Your task to perform on an android device: open wifi settings Image 0: 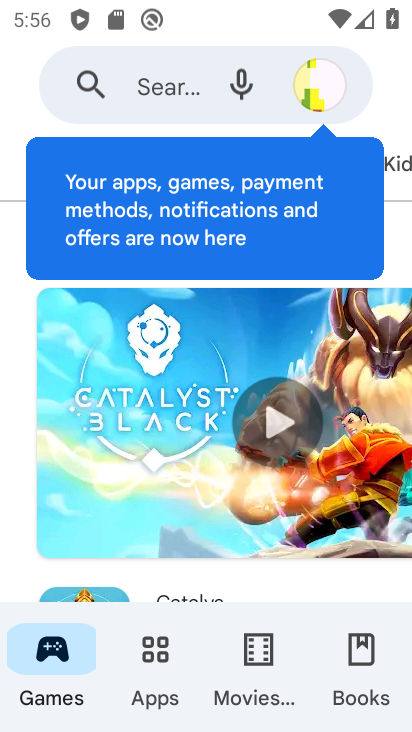
Step 0: press home button
Your task to perform on an android device: open wifi settings Image 1: 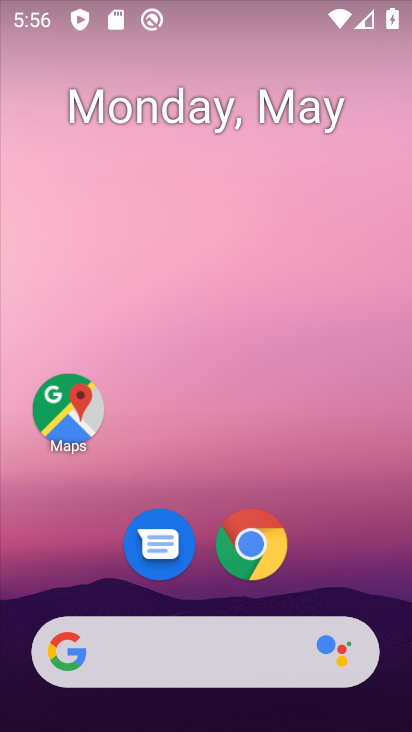
Step 1: drag from (320, 448) to (231, 0)
Your task to perform on an android device: open wifi settings Image 2: 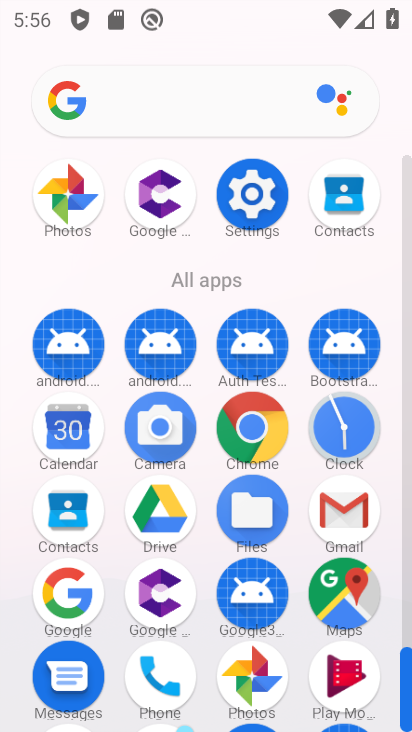
Step 2: click (262, 200)
Your task to perform on an android device: open wifi settings Image 3: 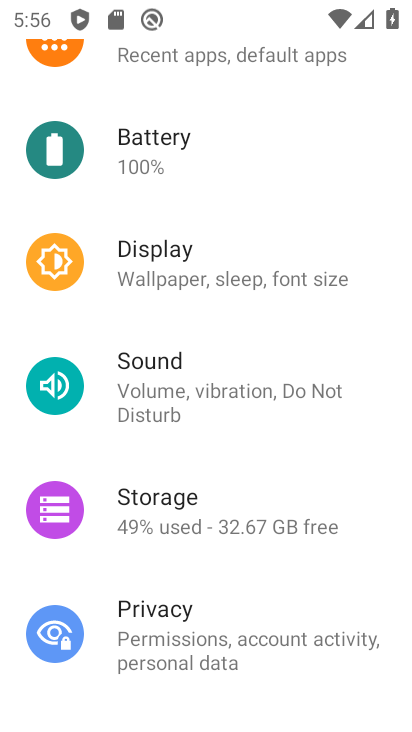
Step 3: drag from (256, 201) to (269, 693)
Your task to perform on an android device: open wifi settings Image 4: 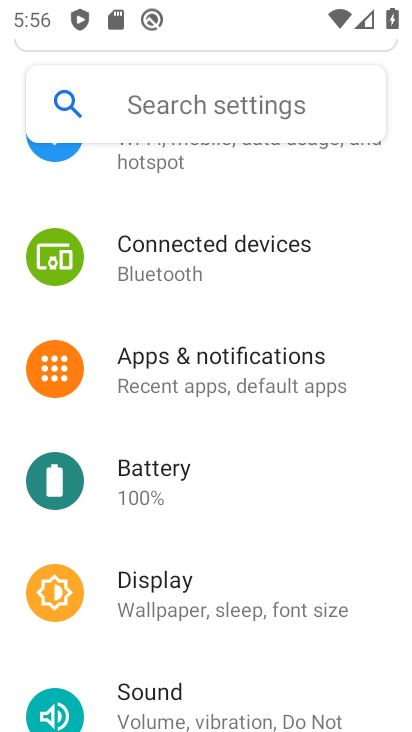
Step 4: drag from (288, 250) to (293, 710)
Your task to perform on an android device: open wifi settings Image 5: 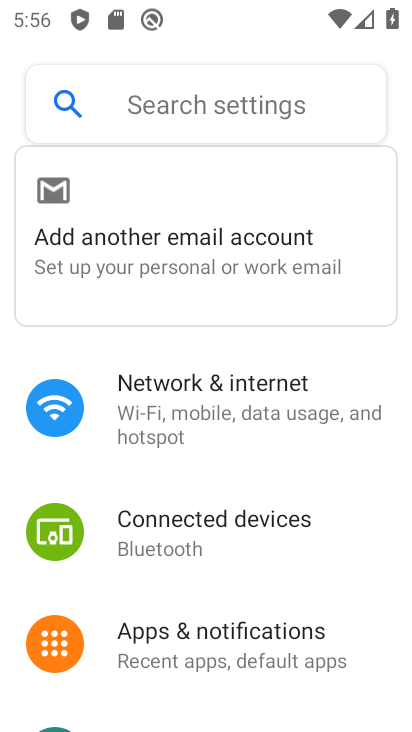
Step 5: click (241, 394)
Your task to perform on an android device: open wifi settings Image 6: 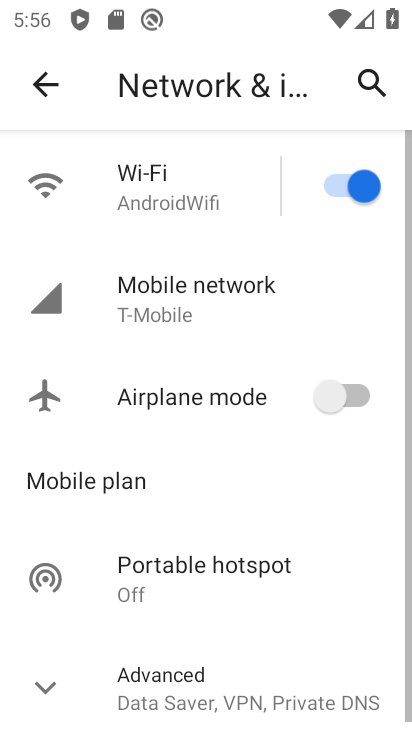
Step 6: click (188, 182)
Your task to perform on an android device: open wifi settings Image 7: 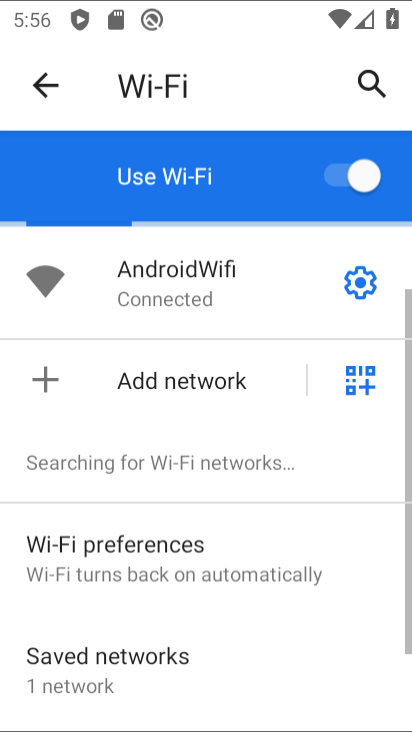
Step 7: task complete